Your task to perform on an android device: What's the weather today? Image 0: 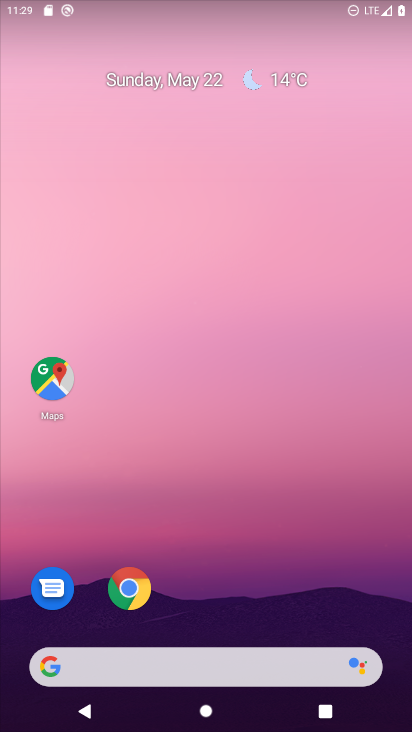
Step 0: drag from (214, 616) to (170, 124)
Your task to perform on an android device: What's the weather today? Image 1: 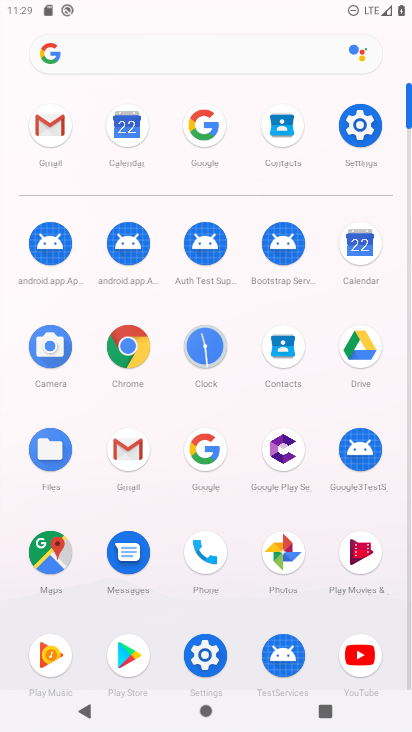
Step 1: click (197, 457)
Your task to perform on an android device: What's the weather today? Image 2: 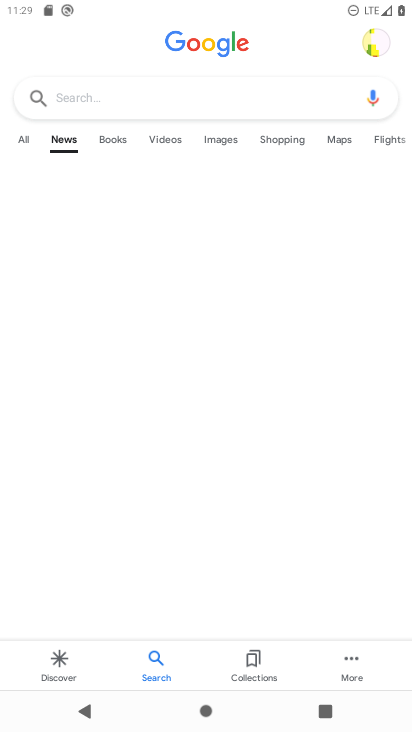
Step 2: click (27, 142)
Your task to perform on an android device: What's the weather today? Image 3: 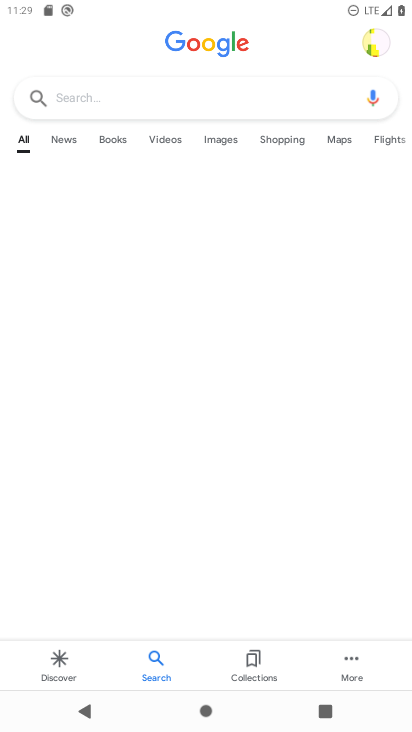
Step 3: click (131, 96)
Your task to perform on an android device: What's the weather today? Image 4: 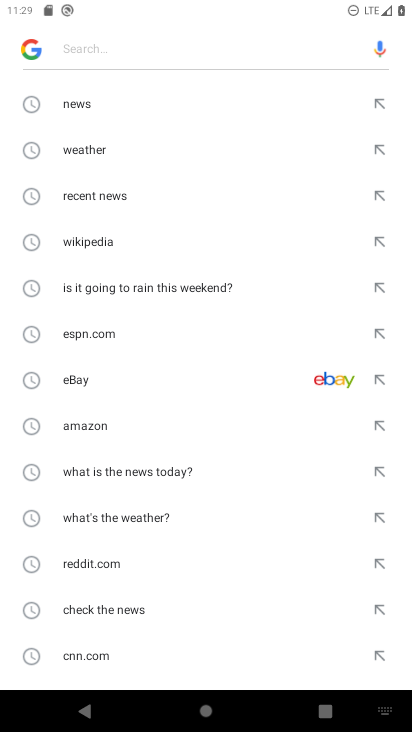
Step 4: click (96, 154)
Your task to perform on an android device: What's the weather today? Image 5: 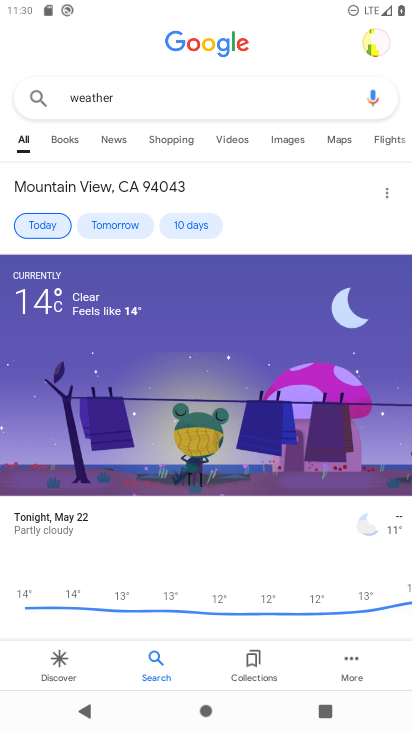
Step 5: task complete